Your task to perform on an android device: Open Google Maps and go to "Timeline" Image 0: 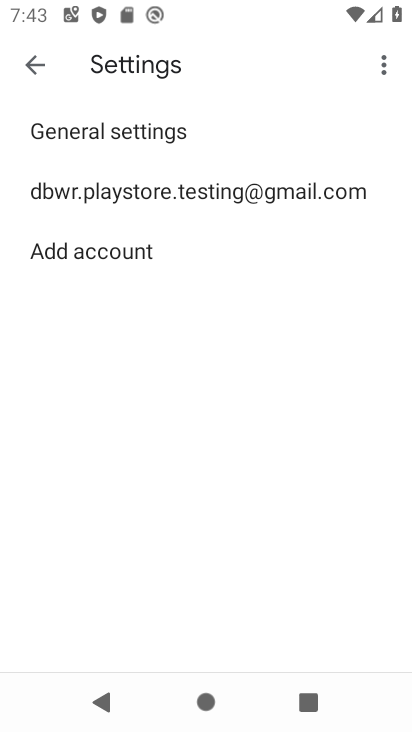
Step 0: press home button
Your task to perform on an android device: Open Google Maps and go to "Timeline" Image 1: 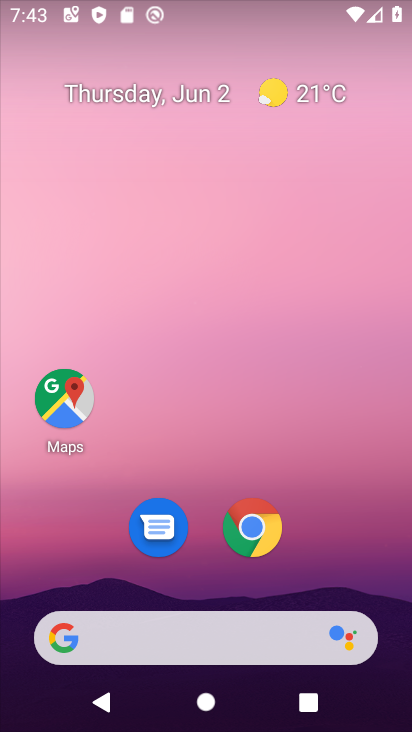
Step 1: click (66, 407)
Your task to perform on an android device: Open Google Maps and go to "Timeline" Image 2: 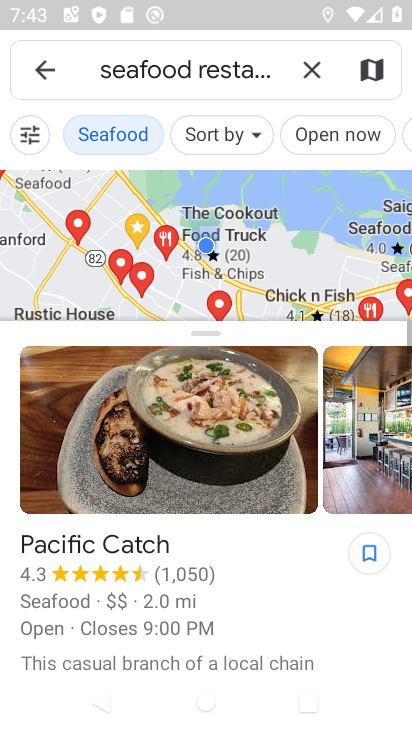
Step 2: click (33, 67)
Your task to perform on an android device: Open Google Maps and go to "Timeline" Image 3: 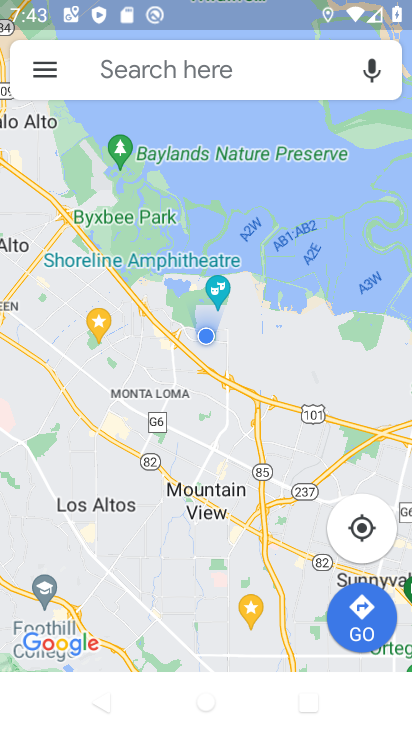
Step 3: click (39, 64)
Your task to perform on an android device: Open Google Maps and go to "Timeline" Image 4: 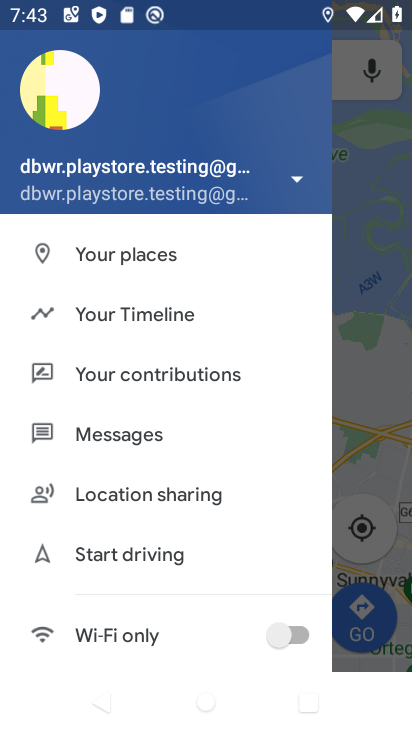
Step 4: click (182, 320)
Your task to perform on an android device: Open Google Maps and go to "Timeline" Image 5: 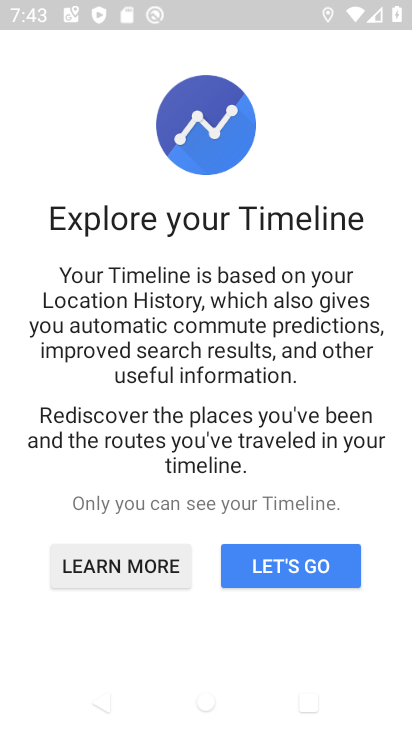
Step 5: click (256, 592)
Your task to perform on an android device: Open Google Maps and go to "Timeline" Image 6: 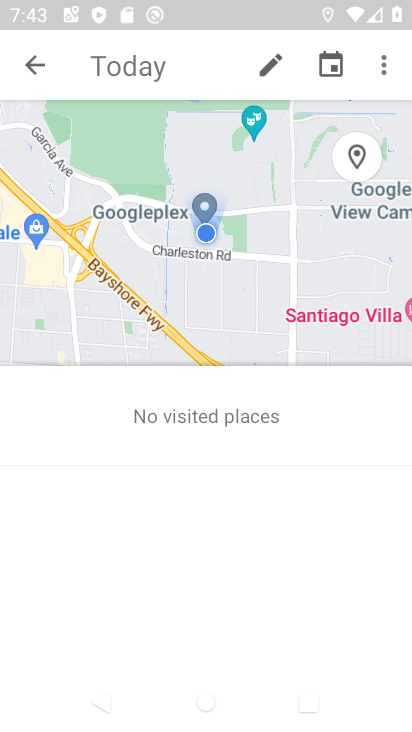
Step 6: task complete